Your task to perform on an android device: Open network settings Image 0: 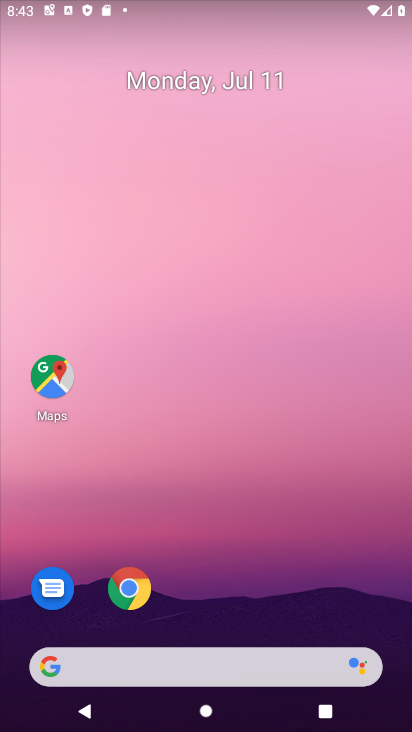
Step 0: drag from (364, 618) to (287, 128)
Your task to perform on an android device: Open network settings Image 1: 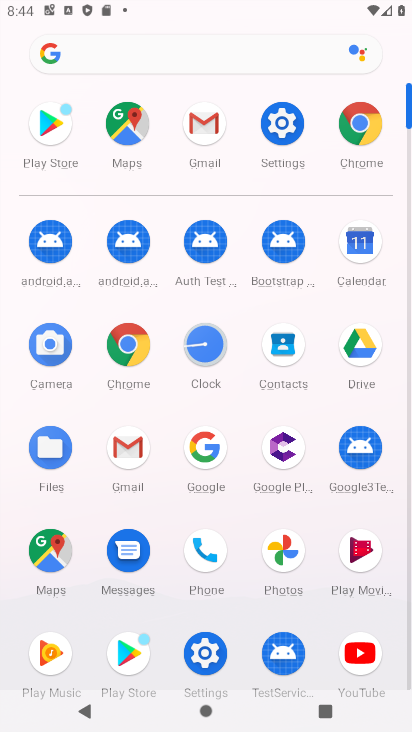
Step 1: click (210, 659)
Your task to perform on an android device: Open network settings Image 2: 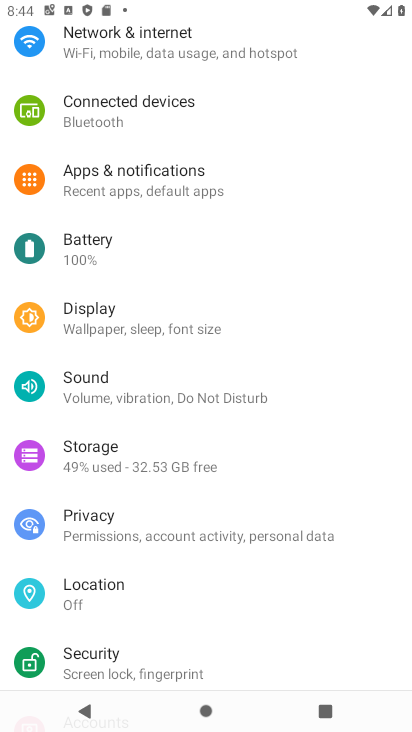
Step 2: drag from (207, 64) to (223, 338)
Your task to perform on an android device: Open network settings Image 3: 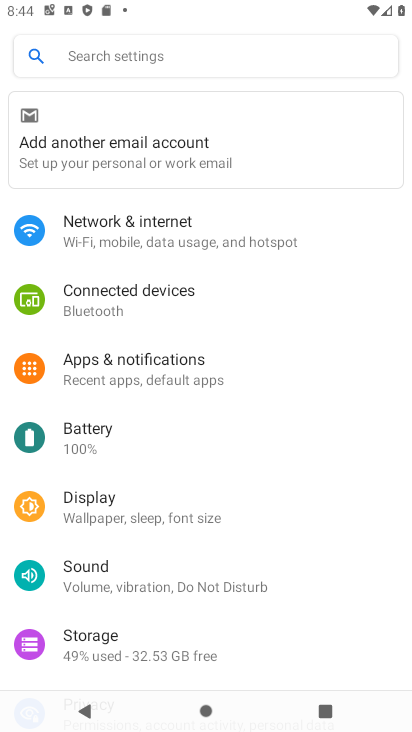
Step 3: drag from (223, 355) to (261, 586)
Your task to perform on an android device: Open network settings Image 4: 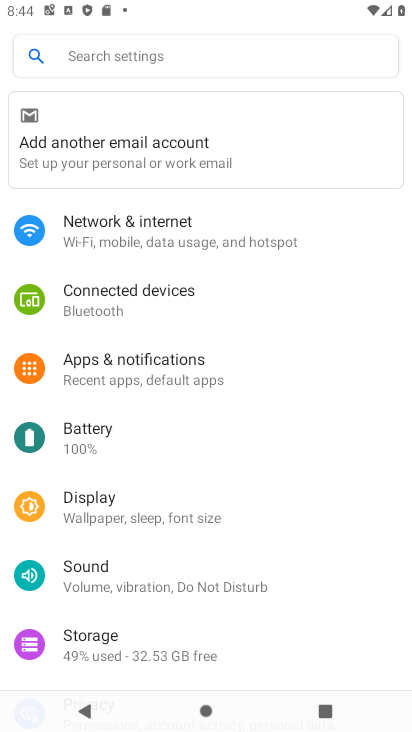
Step 4: click (249, 239)
Your task to perform on an android device: Open network settings Image 5: 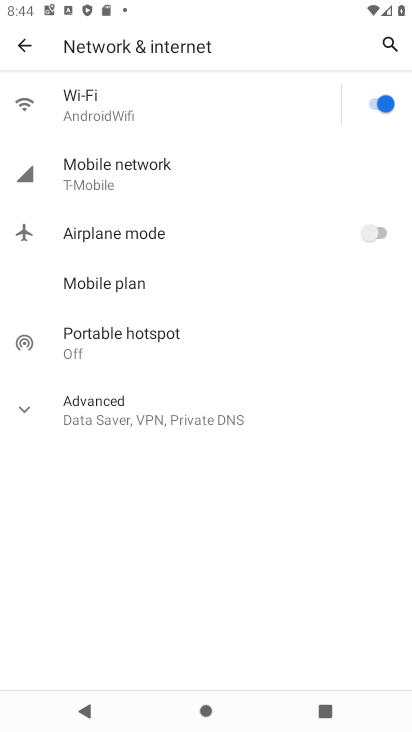
Step 5: task complete